Your task to perform on an android device: remove spam from my inbox in the gmail app Image 0: 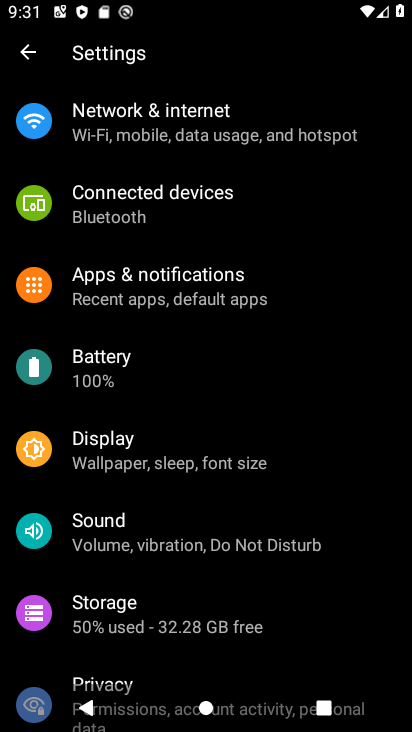
Step 0: press home button
Your task to perform on an android device: remove spam from my inbox in the gmail app Image 1: 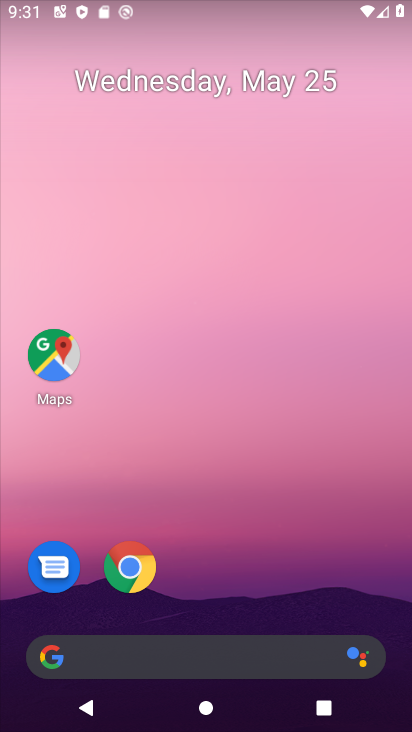
Step 1: drag from (265, 565) to (267, 172)
Your task to perform on an android device: remove spam from my inbox in the gmail app Image 2: 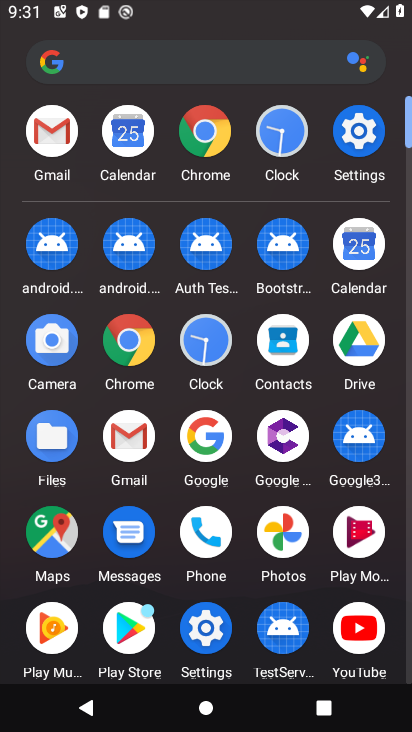
Step 2: click (49, 145)
Your task to perform on an android device: remove spam from my inbox in the gmail app Image 3: 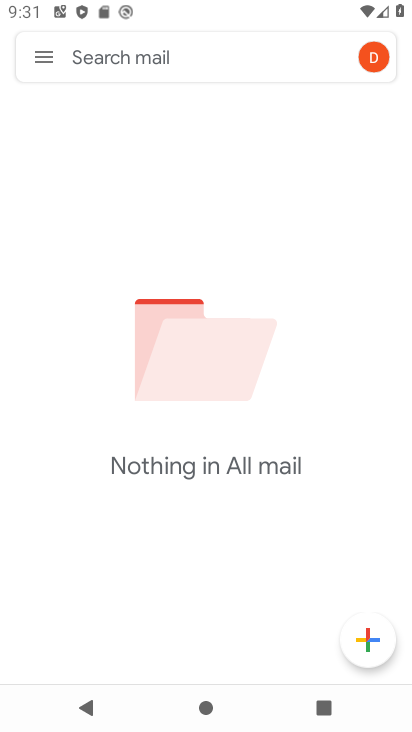
Step 3: click (42, 64)
Your task to perform on an android device: remove spam from my inbox in the gmail app Image 4: 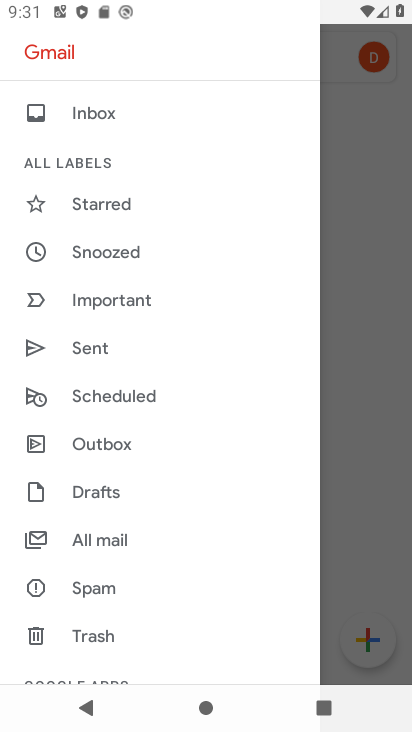
Step 4: click (126, 585)
Your task to perform on an android device: remove spam from my inbox in the gmail app Image 5: 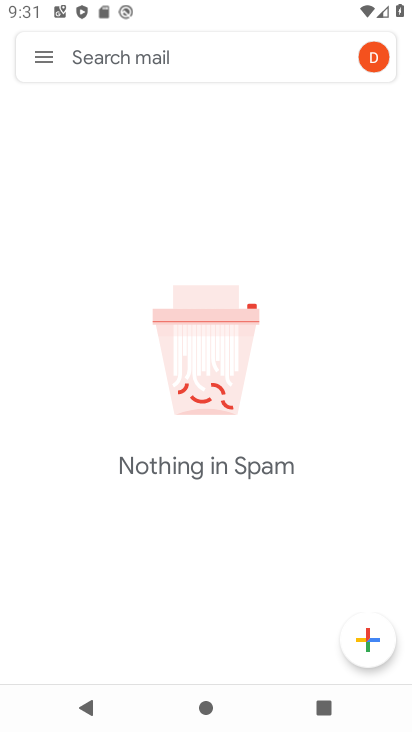
Step 5: task complete